Your task to perform on an android device: Go to sound settings Image 0: 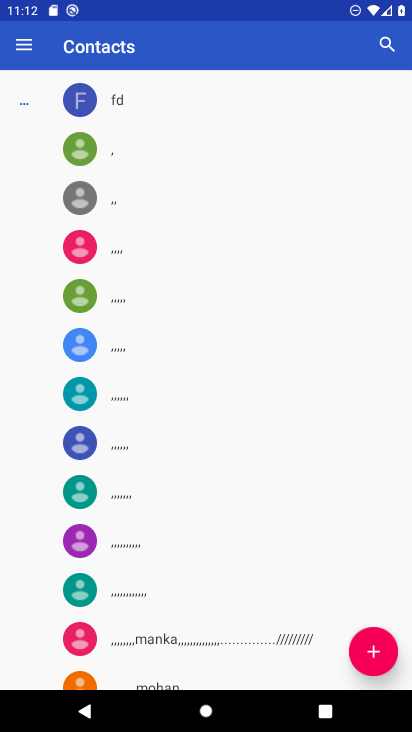
Step 0: press home button
Your task to perform on an android device: Go to sound settings Image 1: 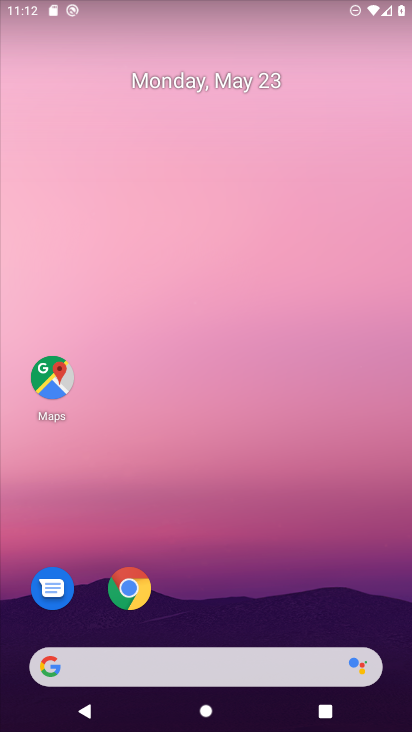
Step 1: drag from (289, 483) to (299, 168)
Your task to perform on an android device: Go to sound settings Image 2: 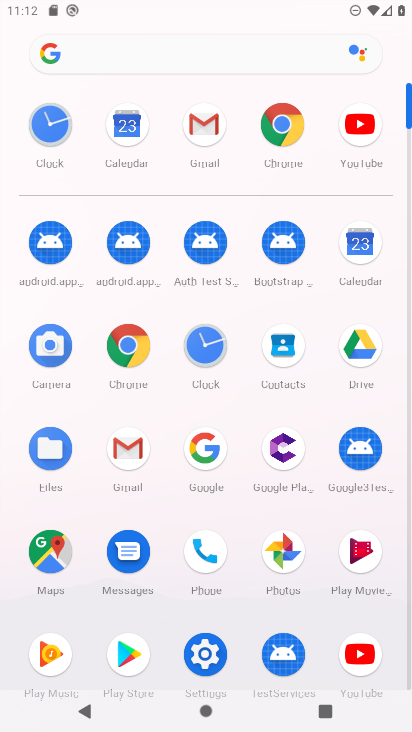
Step 2: click (203, 652)
Your task to perform on an android device: Go to sound settings Image 3: 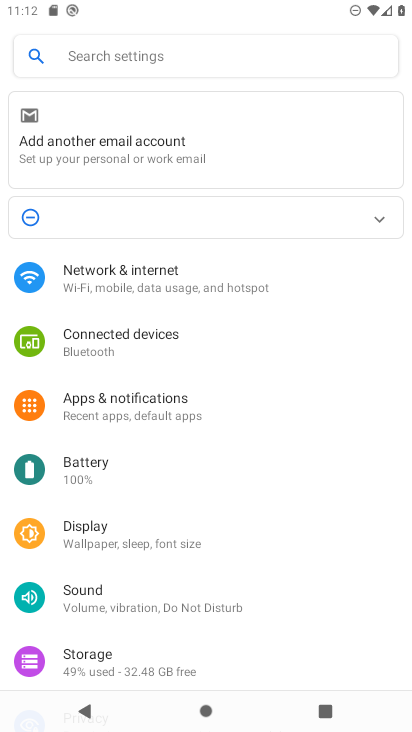
Step 3: click (184, 603)
Your task to perform on an android device: Go to sound settings Image 4: 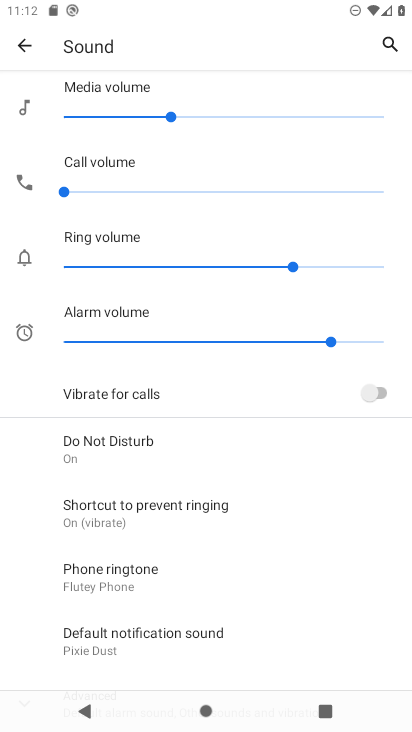
Step 4: task complete